Your task to perform on an android device: Open accessibility settings Image 0: 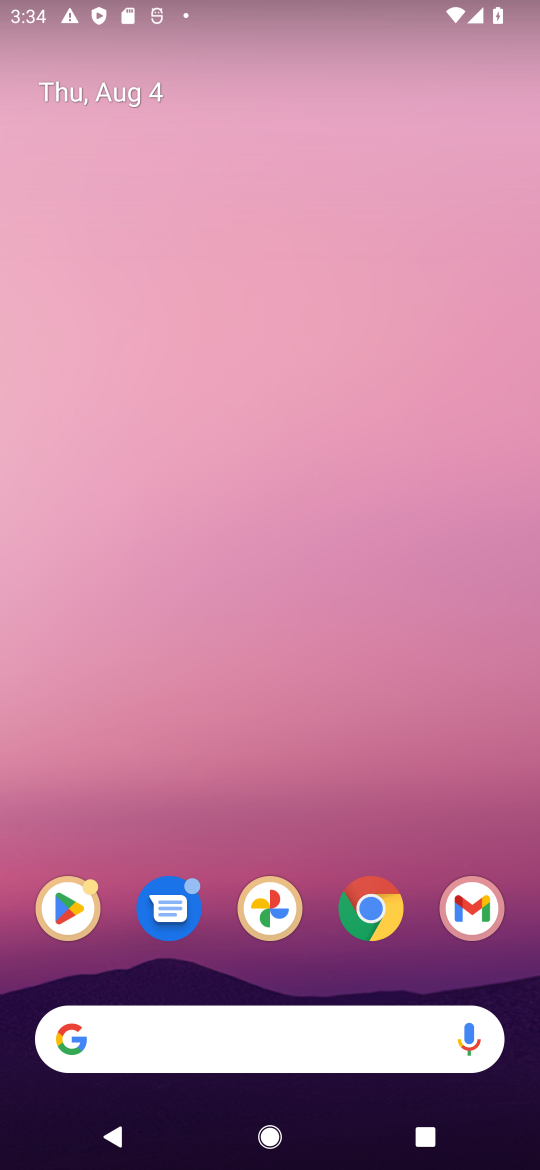
Step 0: drag from (392, 665) to (492, 4)
Your task to perform on an android device: Open accessibility settings Image 1: 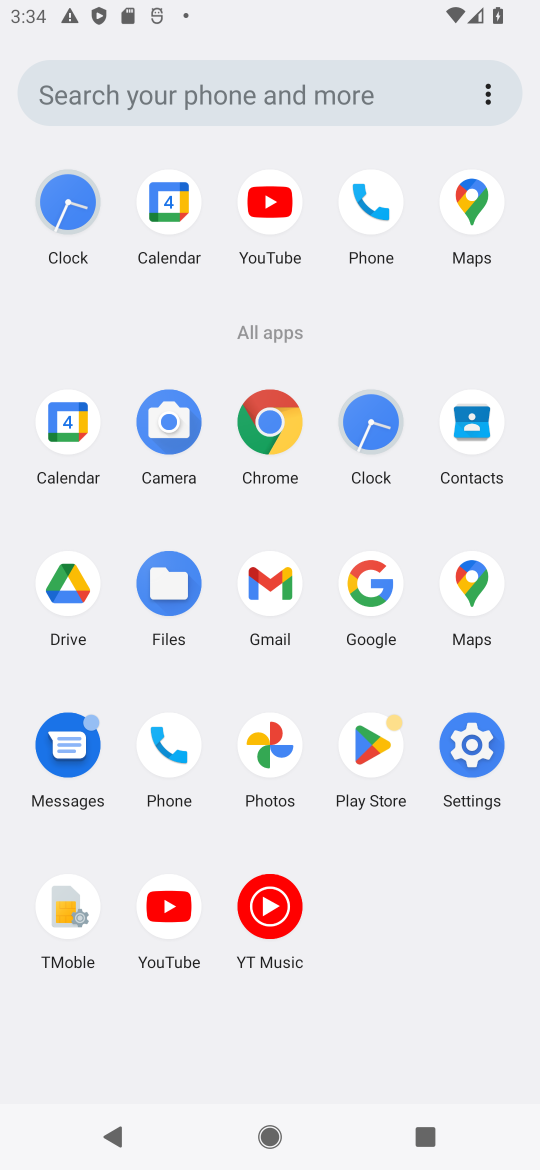
Step 1: click (478, 740)
Your task to perform on an android device: Open accessibility settings Image 2: 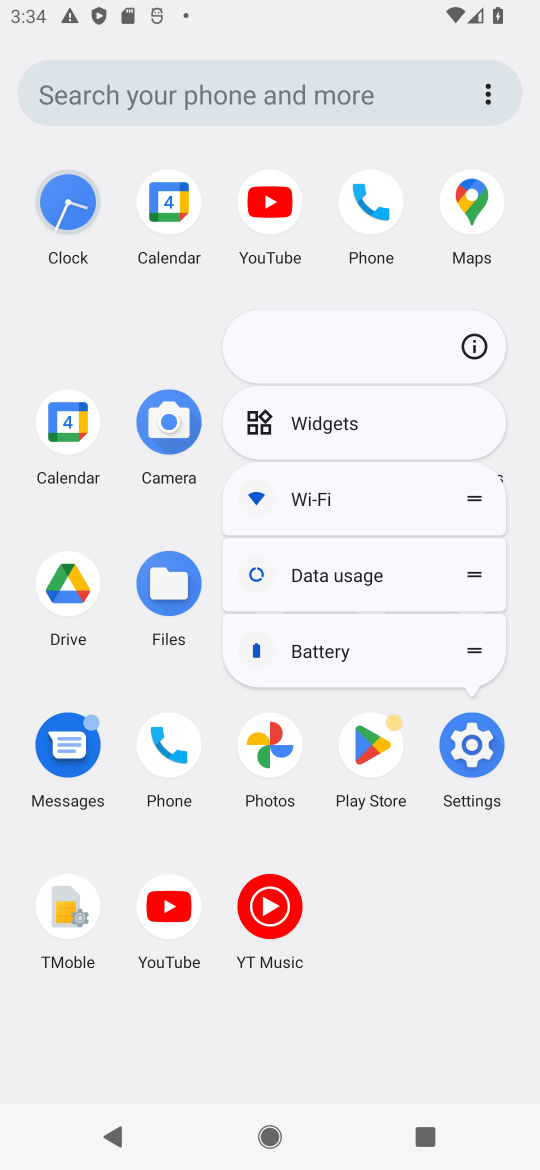
Step 2: click (474, 745)
Your task to perform on an android device: Open accessibility settings Image 3: 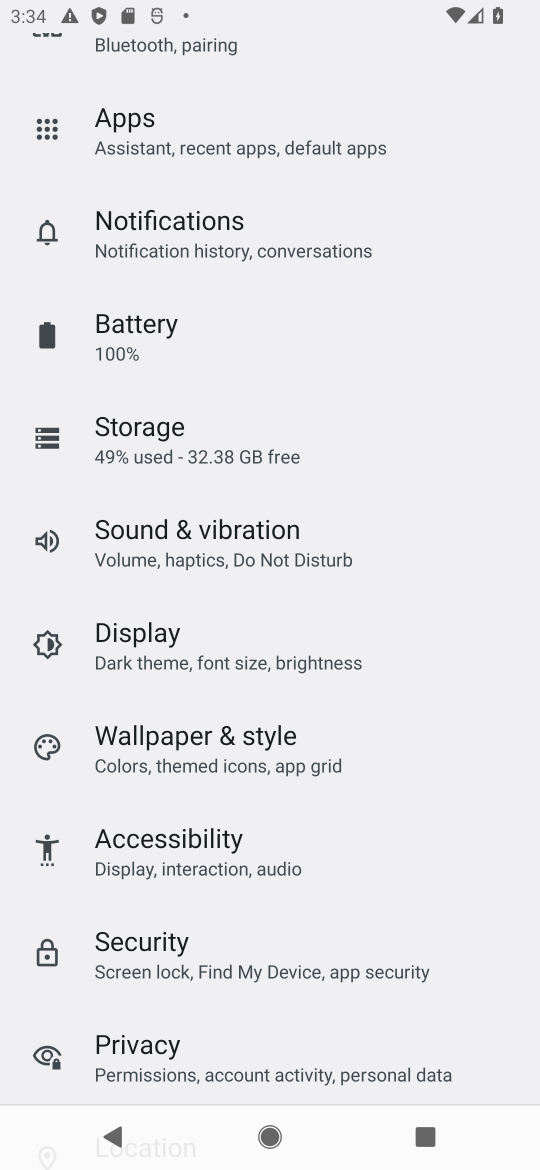
Step 3: click (213, 853)
Your task to perform on an android device: Open accessibility settings Image 4: 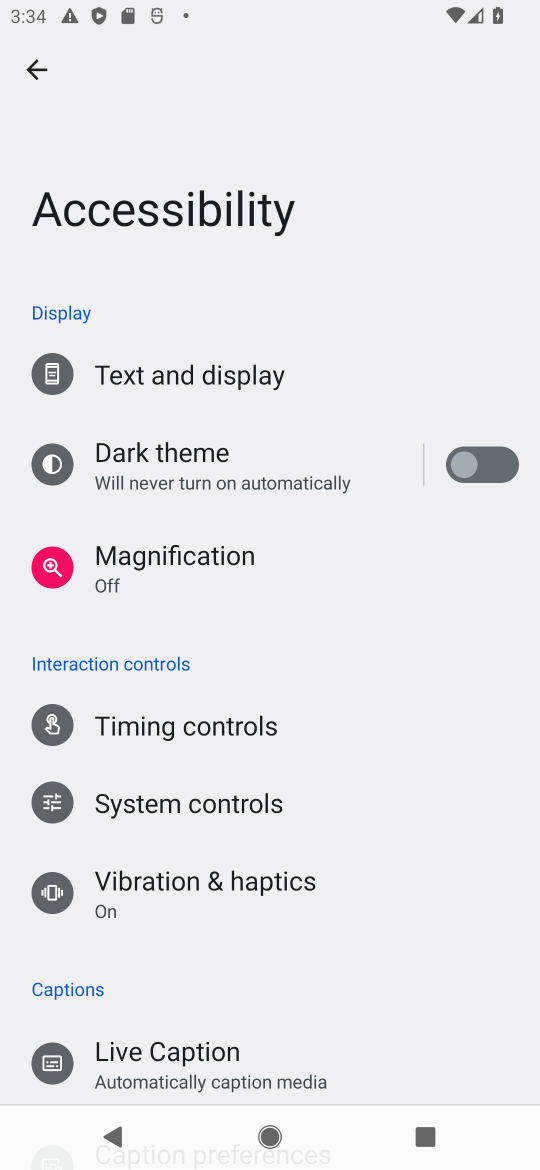
Step 4: task complete